Your task to perform on an android device: toggle pop-ups in chrome Image 0: 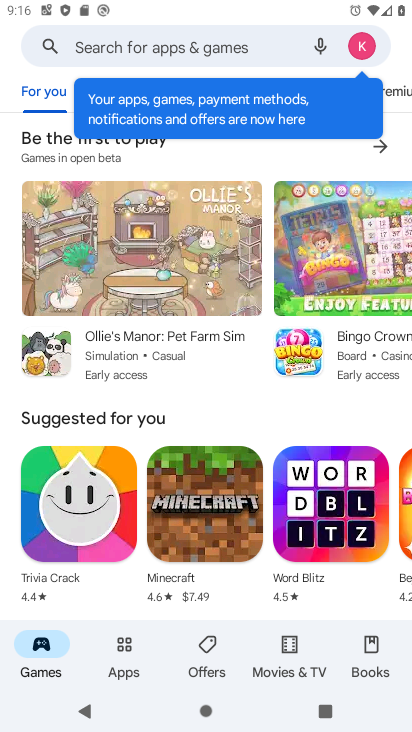
Step 0: press back button
Your task to perform on an android device: toggle pop-ups in chrome Image 1: 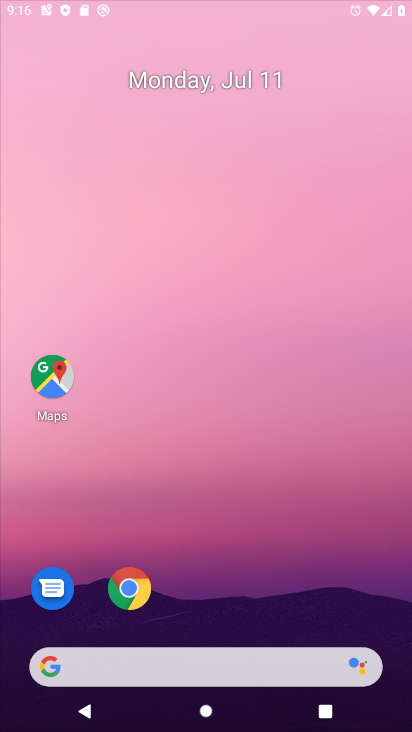
Step 1: press back button
Your task to perform on an android device: toggle pop-ups in chrome Image 2: 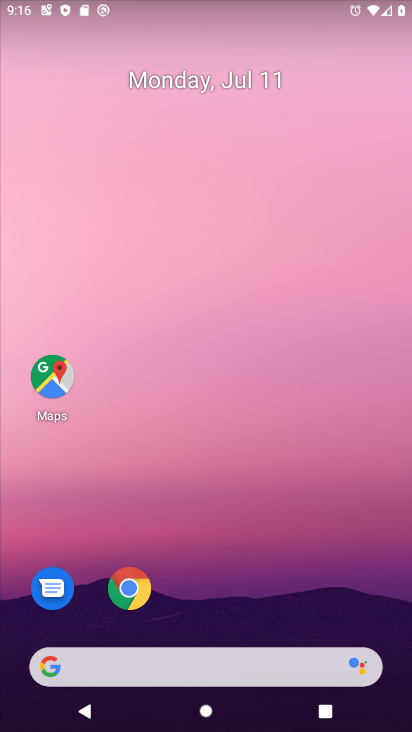
Step 2: click (130, 583)
Your task to perform on an android device: toggle pop-ups in chrome Image 3: 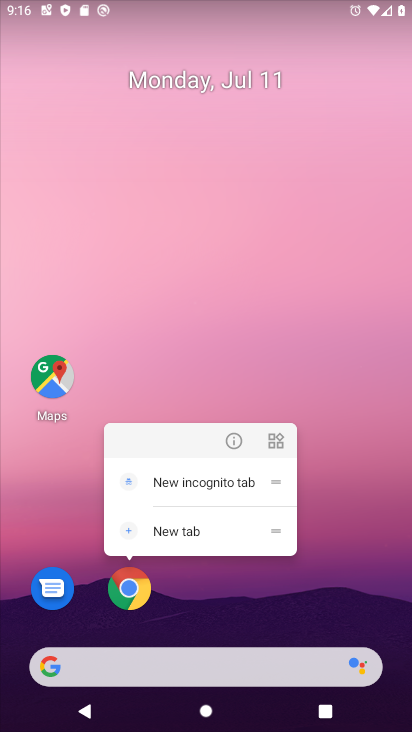
Step 3: click (131, 588)
Your task to perform on an android device: toggle pop-ups in chrome Image 4: 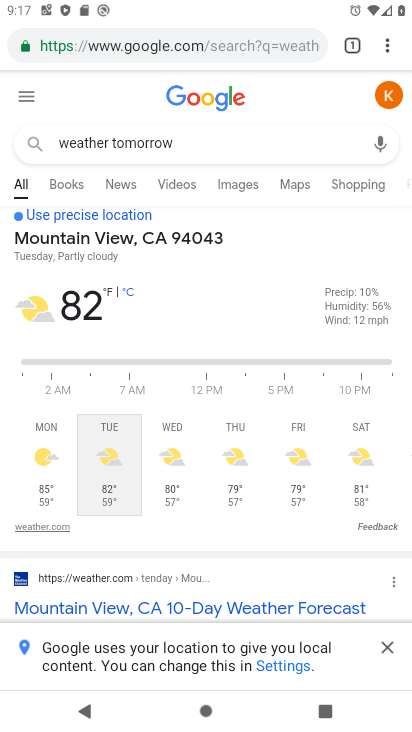
Step 4: drag from (381, 51) to (231, 510)
Your task to perform on an android device: toggle pop-ups in chrome Image 5: 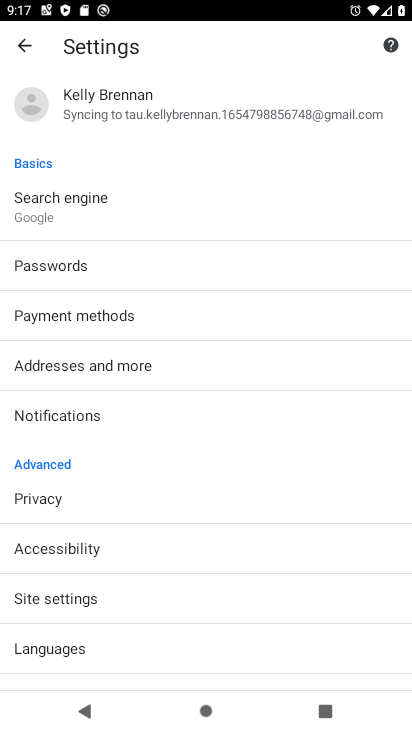
Step 5: click (41, 605)
Your task to perform on an android device: toggle pop-ups in chrome Image 6: 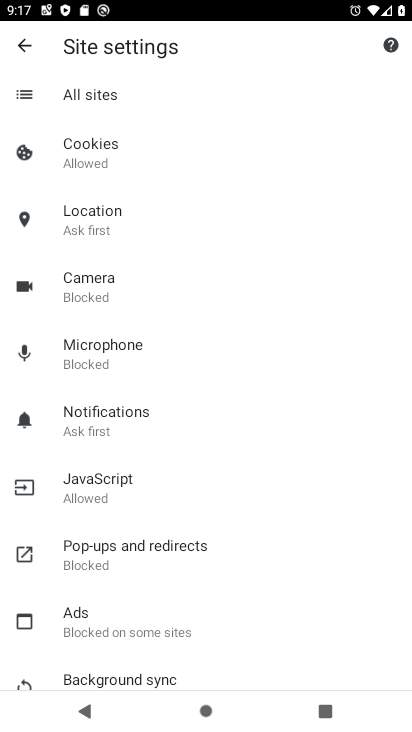
Step 6: click (135, 547)
Your task to perform on an android device: toggle pop-ups in chrome Image 7: 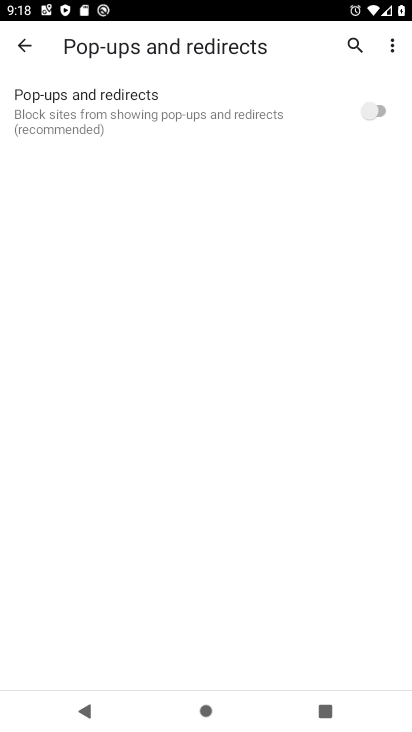
Step 7: click (375, 109)
Your task to perform on an android device: toggle pop-ups in chrome Image 8: 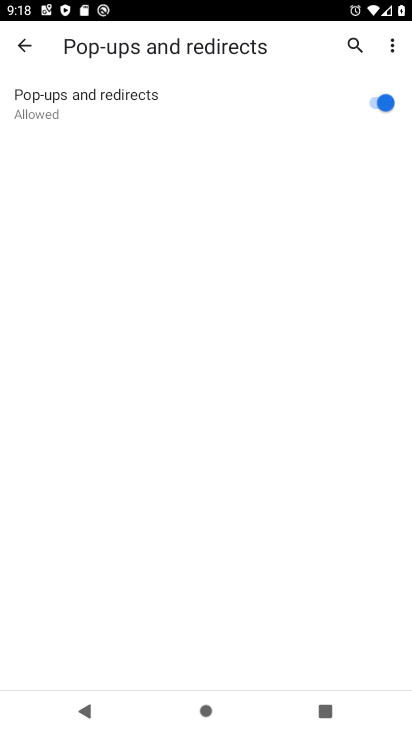
Step 8: task complete